Your task to perform on an android device: change the clock display to analog Image 0: 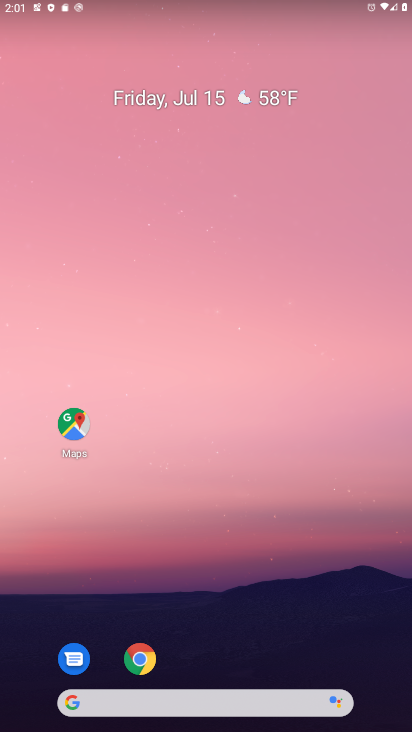
Step 0: drag from (196, 717) to (194, 229)
Your task to perform on an android device: change the clock display to analog Image 1: 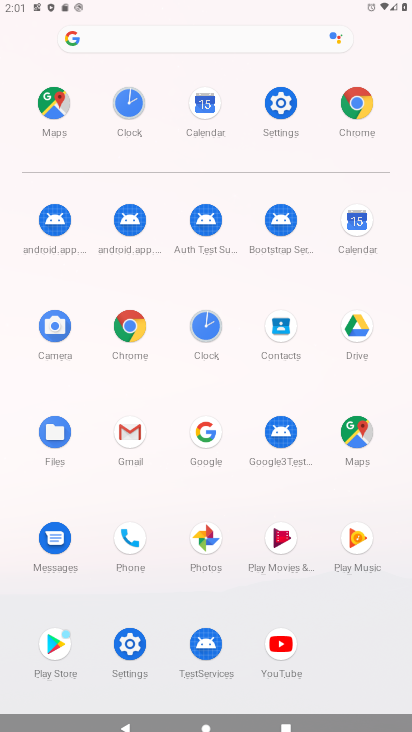
Step 1: click (206, 327)
Your task to perform on an android device: change the clock display to analog Image 2: 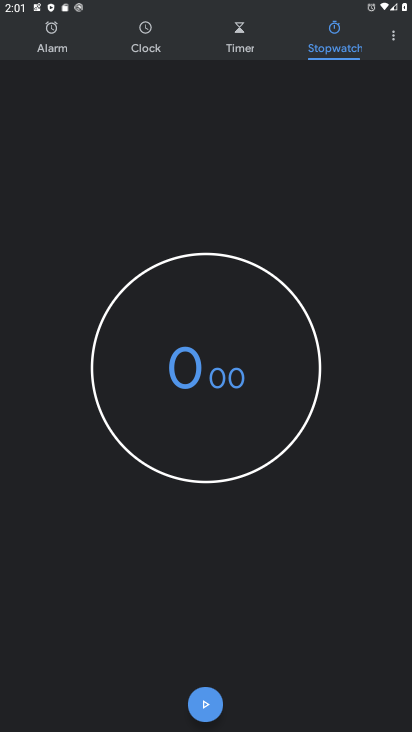
Step 2: click (395, 40)
Your task to perform on an android device: change the clock display to analog Image 3: 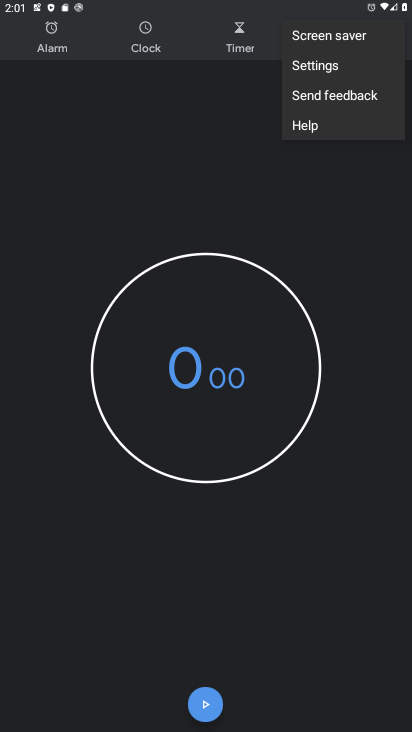
Step 3: click (321, 62)
Your task to perform on an android device: change the clock display to analog Image 4: 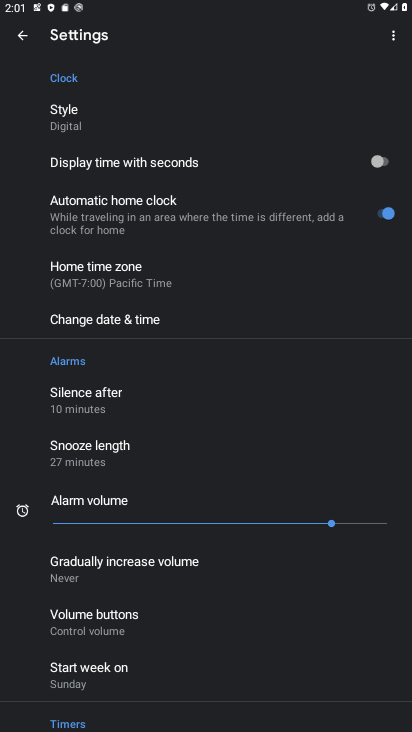
Step 4: click (75, 122)
Your task to perform on an android device: change the clock display to analog Image 5: 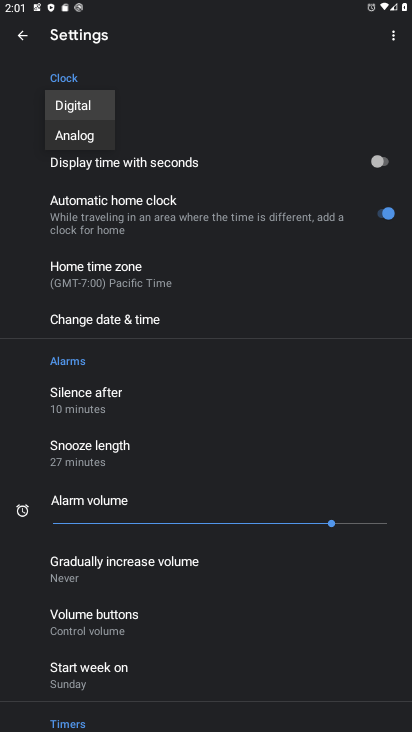
Step 5: click (79, 131)
Your task to perform on an android device: change the clock display to analog Image 6: 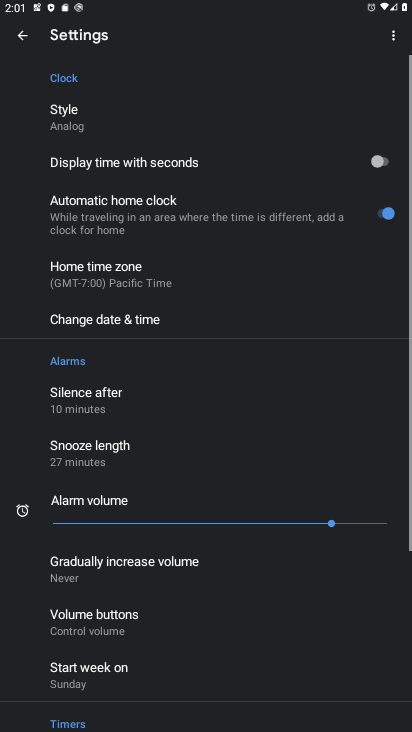
Step 6: task complete